Your task to perform on an android device: open chrome and create a bookmark for the current page Image 0: 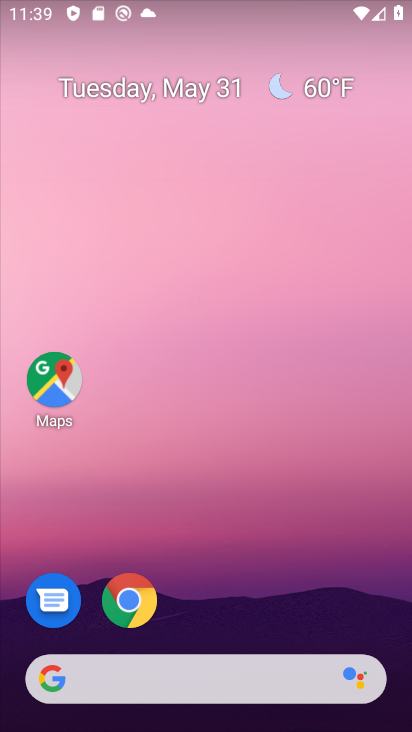
Step 0: drag from (360, 636) to (364, 163)
Your task to perform on an android device: open chrome and create a bookmark for the current page Image 1: 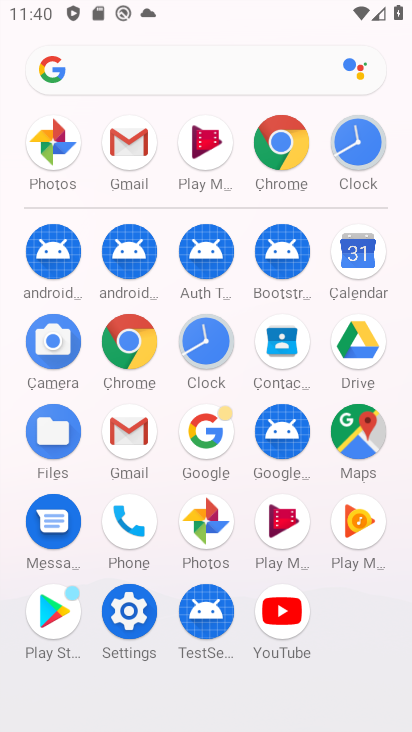
Step 1: click (137, 346)
Your task to perform on an android device: open chrome and create a bookmark for the current page Image 2: 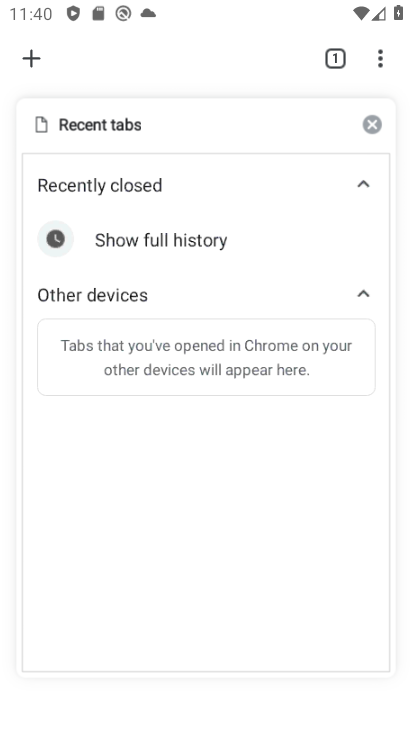
Step 2: press back button
Your task to perform on an android device: open chrome and create a bookmark for the current page Image 3: 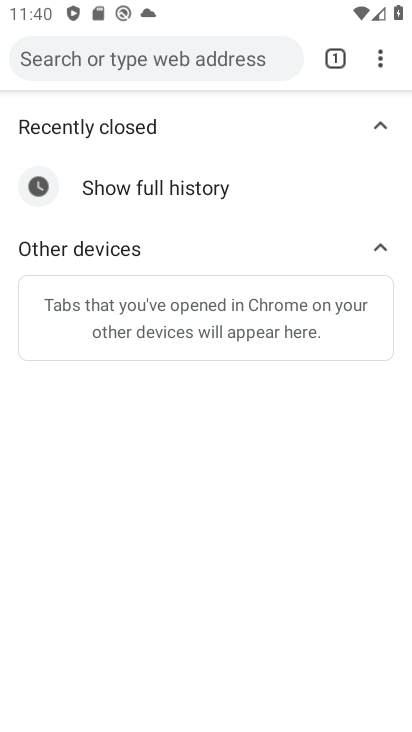
Step 3: click (382, 60)
Your task to perform on an android device: open chrome and create a bookmark for the current page Image 4: 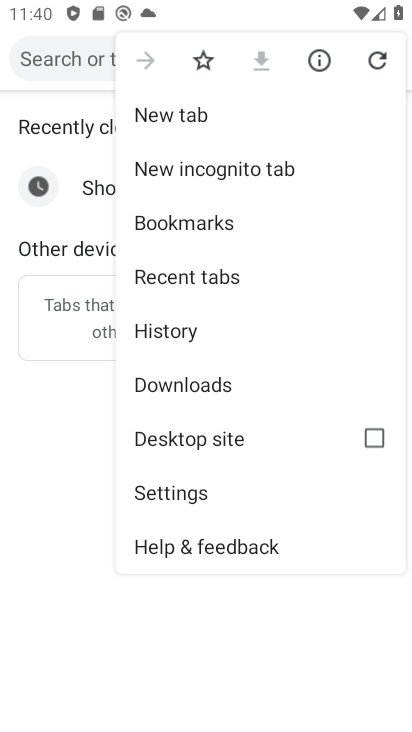
Step 4: click (209, 57)
Your task to perform on an android device: open chrome and create a bookmark for the current page Image 5: 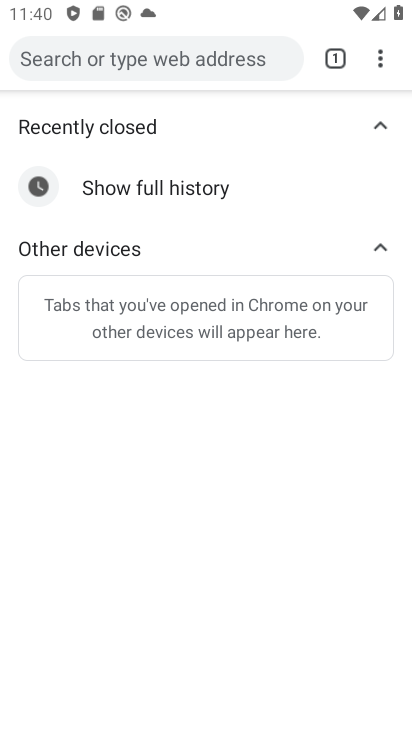
Step 5: task complete